Your task to perform on an android device: show emergency info Image 0: 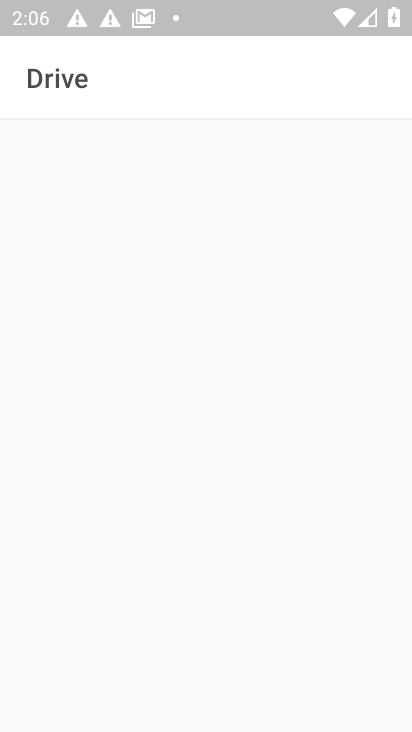
Step 0: press home button
Your task to perform on an android device: show emergency info Image 1: 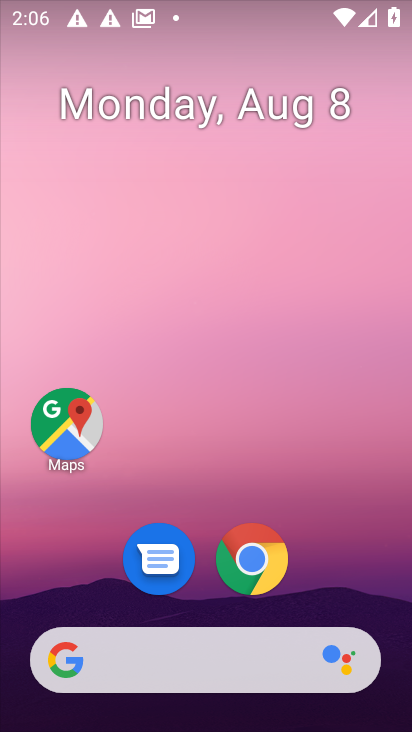
Step 1: drag from (189, 662) to (230, 150)
Your task to perform on an android device: show emergency info Image 2: 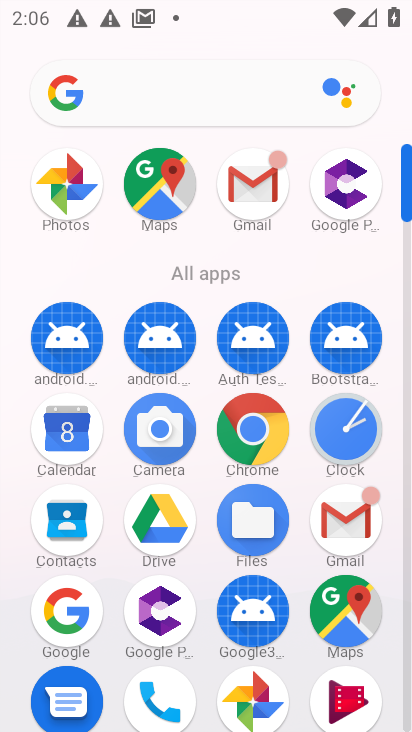
Step 2: drag from (211, 567) to (252, 315)
Your task to perform on an android device: show emergency info Image 3: 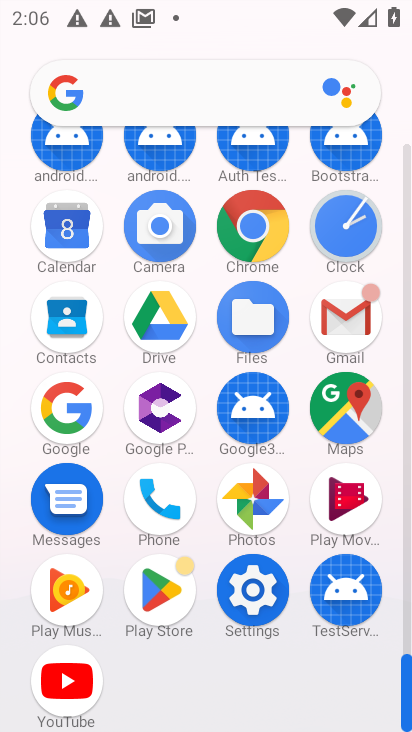
Step 3: click (254, 588)
Your task to perform on an android device: show emergency info Image 4: 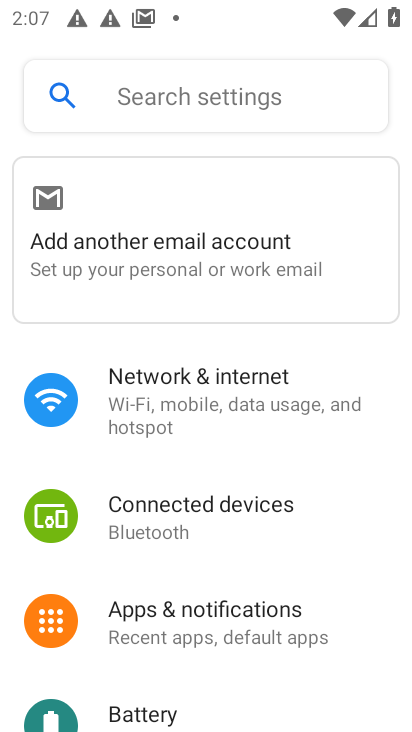
Step 4: drag from (247, 554) to (305, 452)
Your task to perform on an android device: show emergency info Image 5: 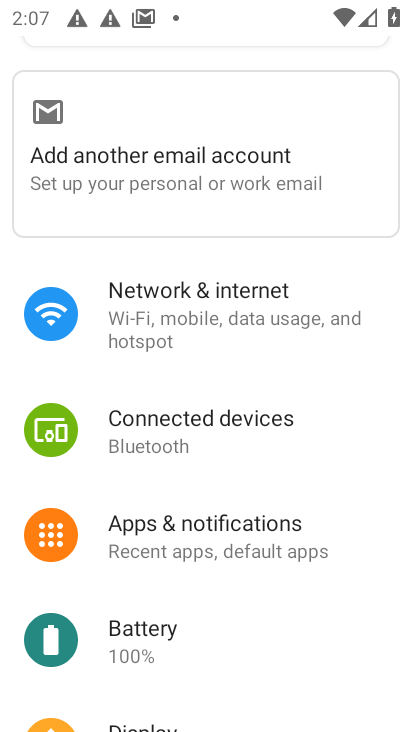
Step 5: drag from (218, 580) to (314, 467)
Your task to perform on an android device: show emergency info Image 6: 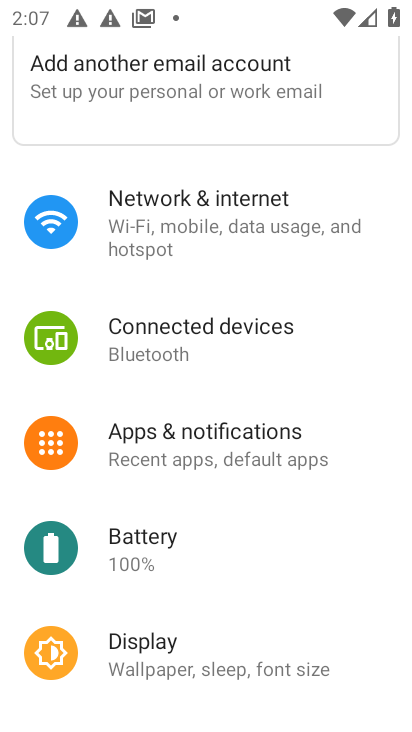
Step 6: drag from (212, 580) to (272, 475)
Your task to perform on an android device: show emergency info Image 7: 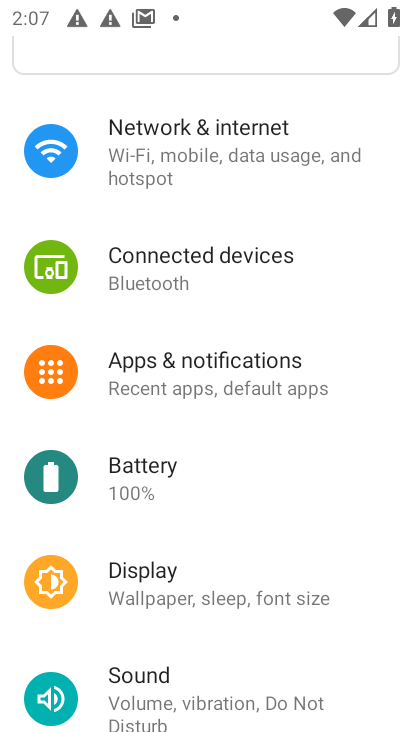
Step 7: drag from (151, 616) to (227, 493)
Your task to perform on an android device: show emergency info Image 8: 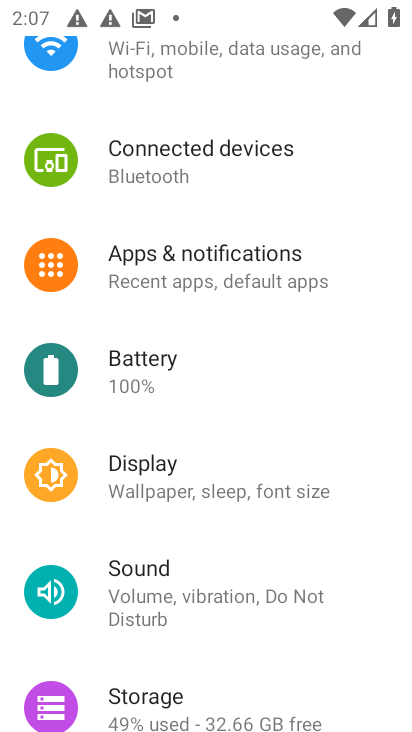
Step 8: drag from (180, 539) to (221, 401)
Your task to perform on an android device: show emergency info Image 9: 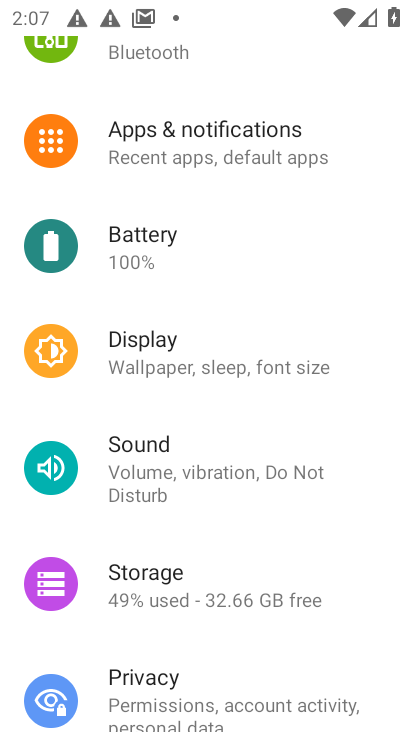
Step 9: drag from (164, 533) to (213, 398)
Your task to perform on an android device: show emergency info Image 10: 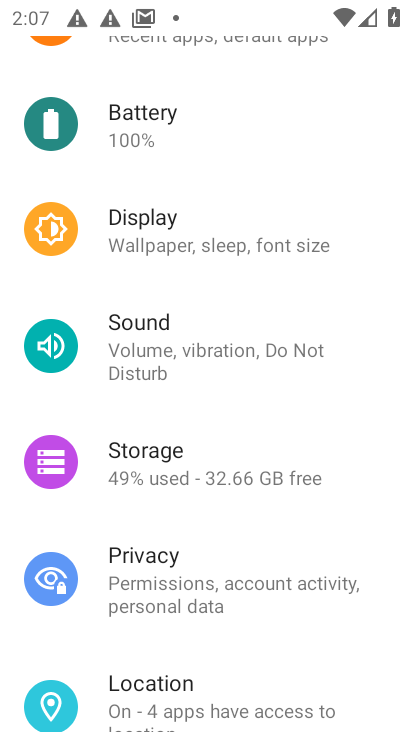
Step 10: drag from (148, 517) to (239, 375)
Your task to perform on an android device: show emergency info Image 11: 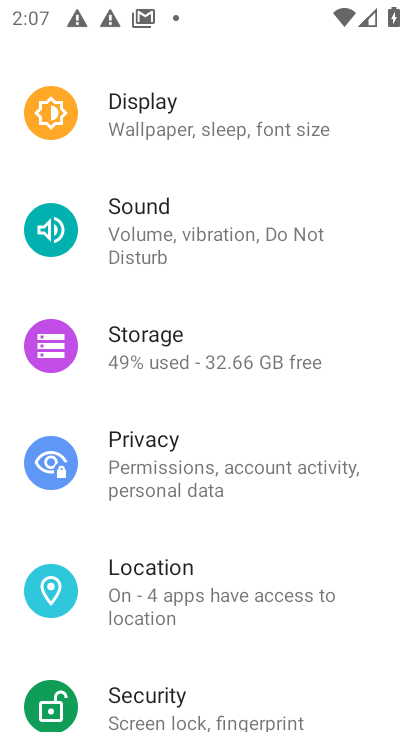
Step 11: drag from (166, 516) to (218, 394)
Your task to perform on an android device: show emergency info Image 12: 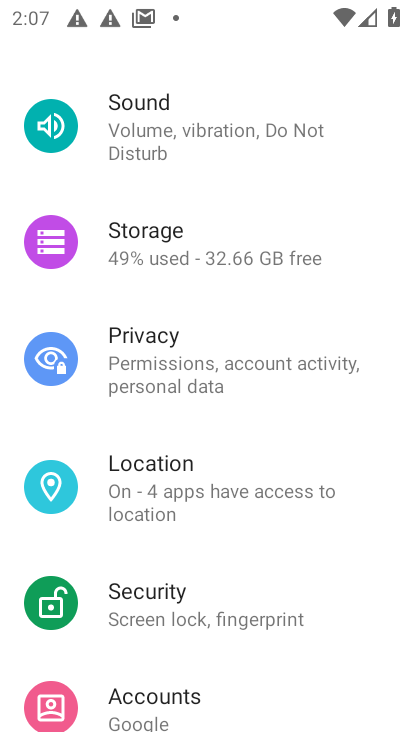
Step 12: drag from (172, 542) to (238, 445)
Your task to perform on an android device: show emergency info Image 13: 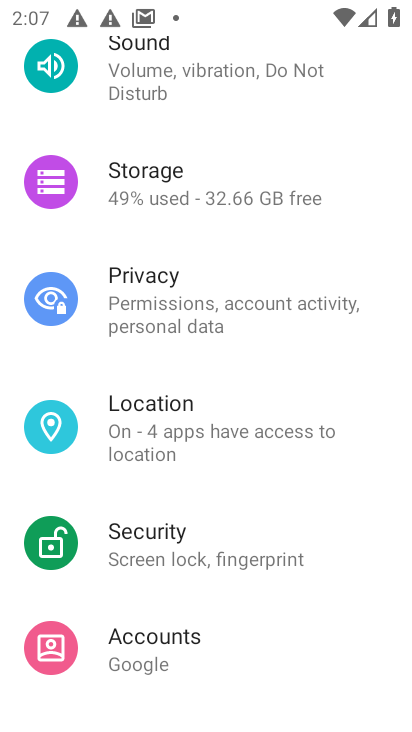
Step 13: drag from (162, 499) to (266, 378)
Your task to perform on an android device: show emergency info Image 14: 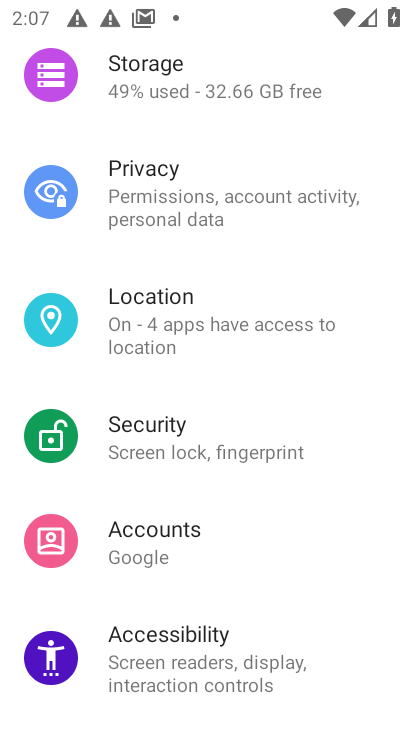
Step 14: drag from (145, 495) to (215, 396)
Your task to perform on an android device: show emergency info Image 15: 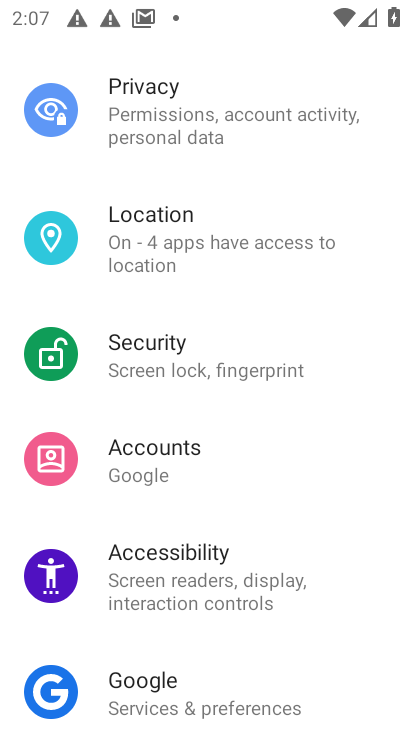
Step 15: drag from (136, 489) to (209, 385)
Your task to perform on an android device: show emergency info Image 16: 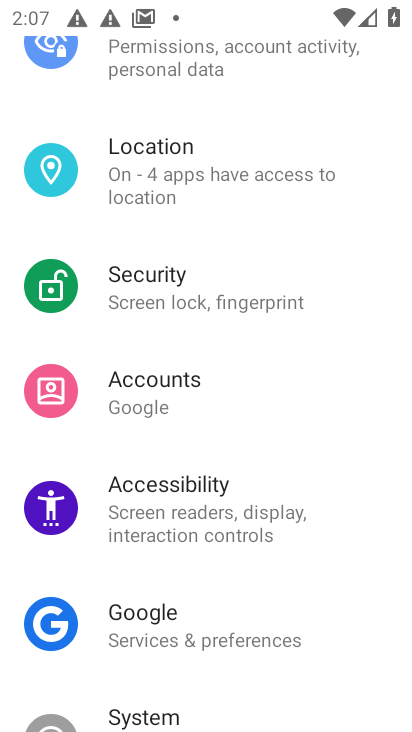
Step 16: drag from (84, 564) to (181, 457)
Your task to perform on an android device: show emergency info Image 17: 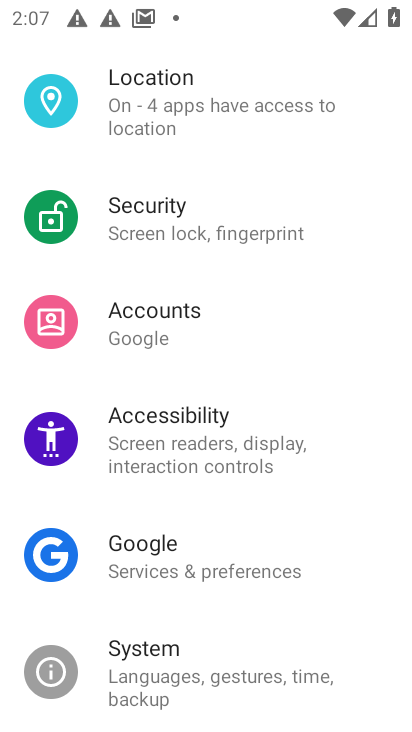
Step 17: drag from (164, 595) to (263, 471)
Your task to perform on an android device: show emergency info Image 18: 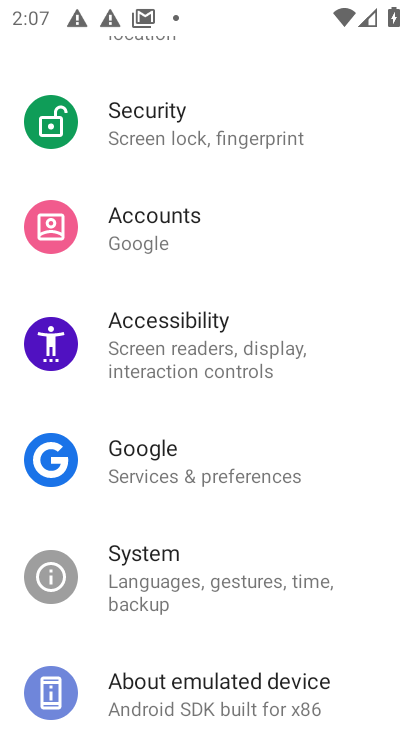
Step 18: click (220, 681)
Your task to perform on an android device: show emergency info Image 19: 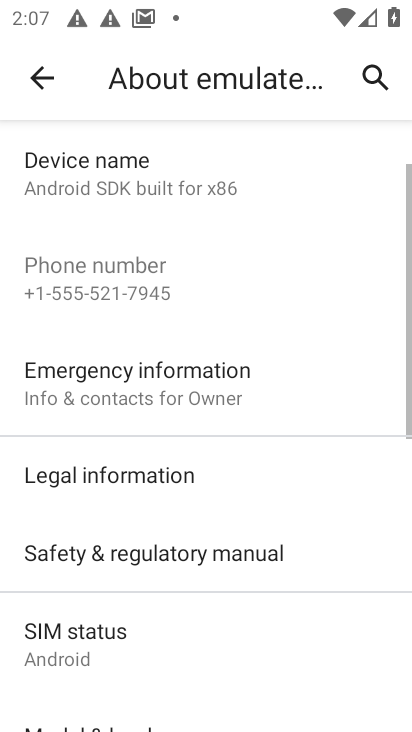
Step 19: click (117, 383)
Your task to perform on an android device: show emergency info Image 20: 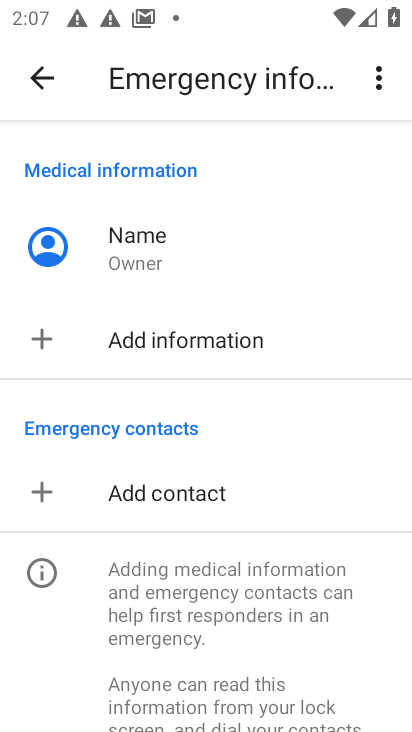
Step 20: task complete